Your task to perform on an android device: Open the calendar and show me this week's events Image 0: 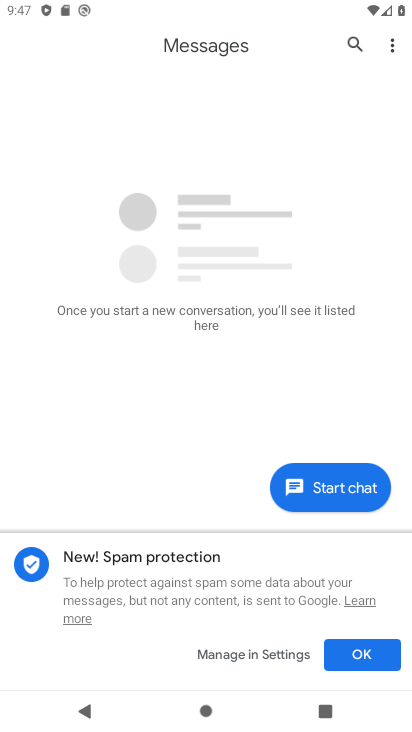
Step 0: press home button
Your task to perform on an android device: Open the calendar and show me this week's events Image 1: 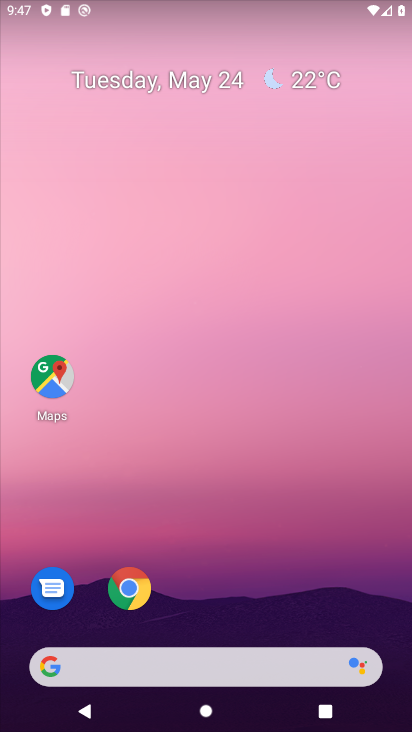
Step 1: click (167, 86)
Your task to perform on an android device: Open the calendar and show me this week's events Image 2: 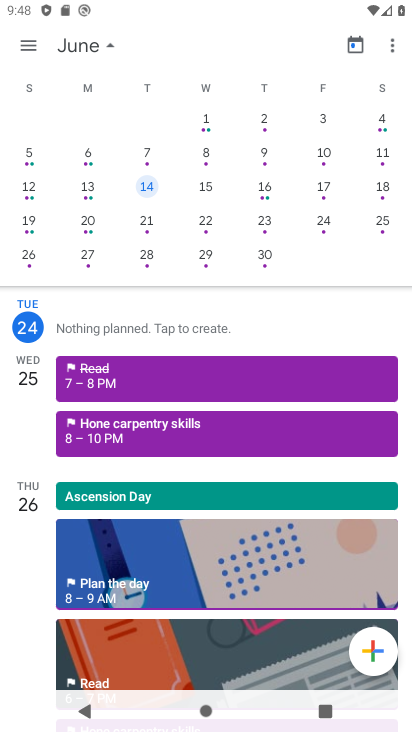
Step 2: click (58, 48)
Your task to perform on an android device: Open the calendar and show me this week's events Image 3: 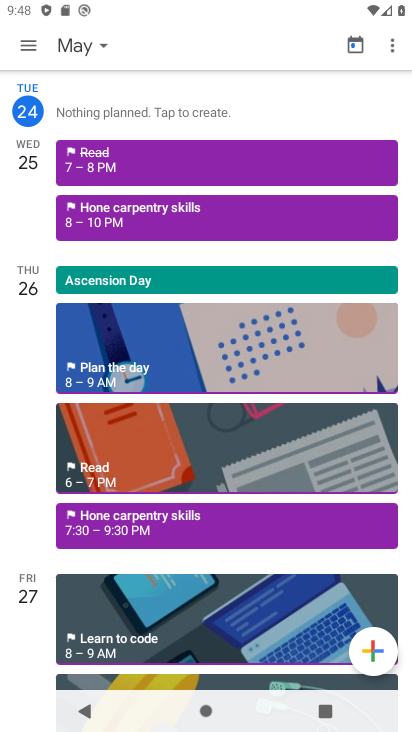
Step 3: click (58, 48)
Your task to perform on an android device: Open the calendar and show me this week's events Image 4: 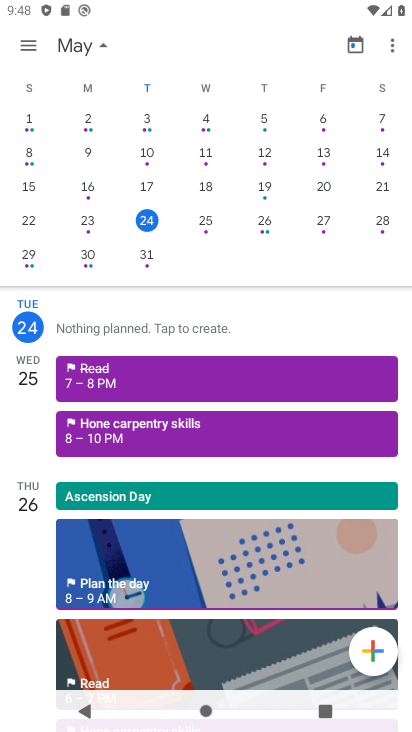
Step 4: click (24, 44)
Your task to perform on an android device: Open the calendar and show me this week's events Image 5: 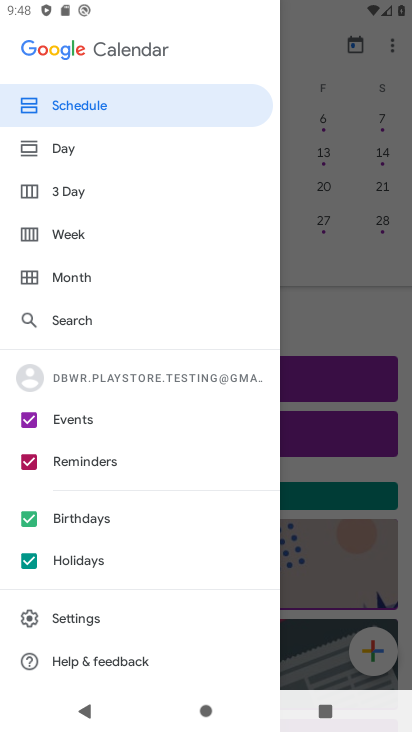
Step 5: click (31, 469)
Your task to perform on an android device: Open the calendar and show me this week's events Image 6: 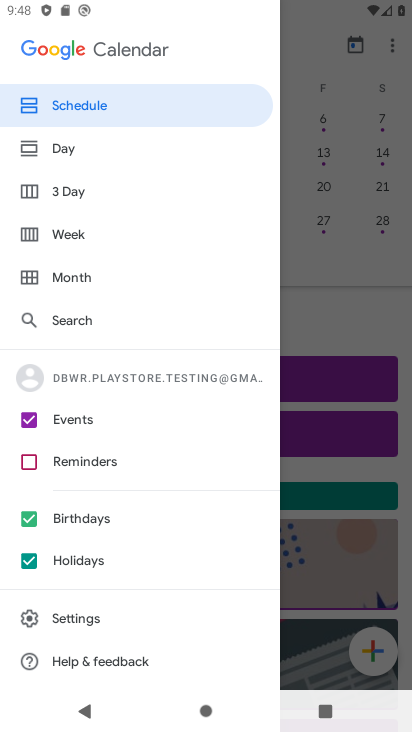
Step 6: click (32, 518)
Your task to perform on an android device: Open the calendar and show me this week's events Image 7: 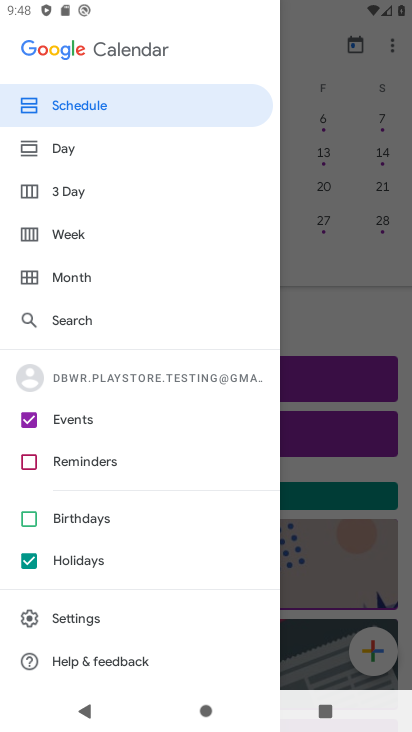
Step 7: click (32, 563)
Your task to perform on an android device: Open the calendar and show me this week's events Image 8: 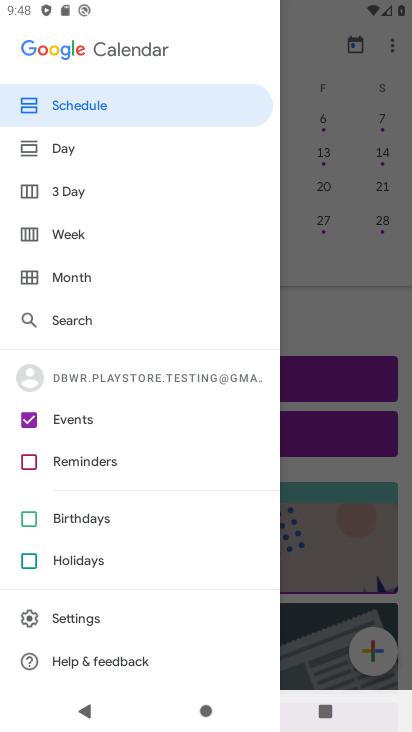
Step 8: click (82, 245)
Your task to perform on an android device: Open the calendar and show me this week's events Image 9: 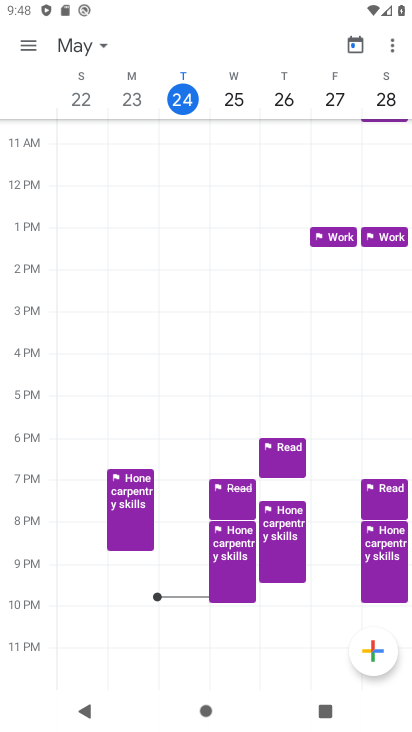
Step 9: task complete